Your task to perform on an android device: Turn off the flashlight Image 0: 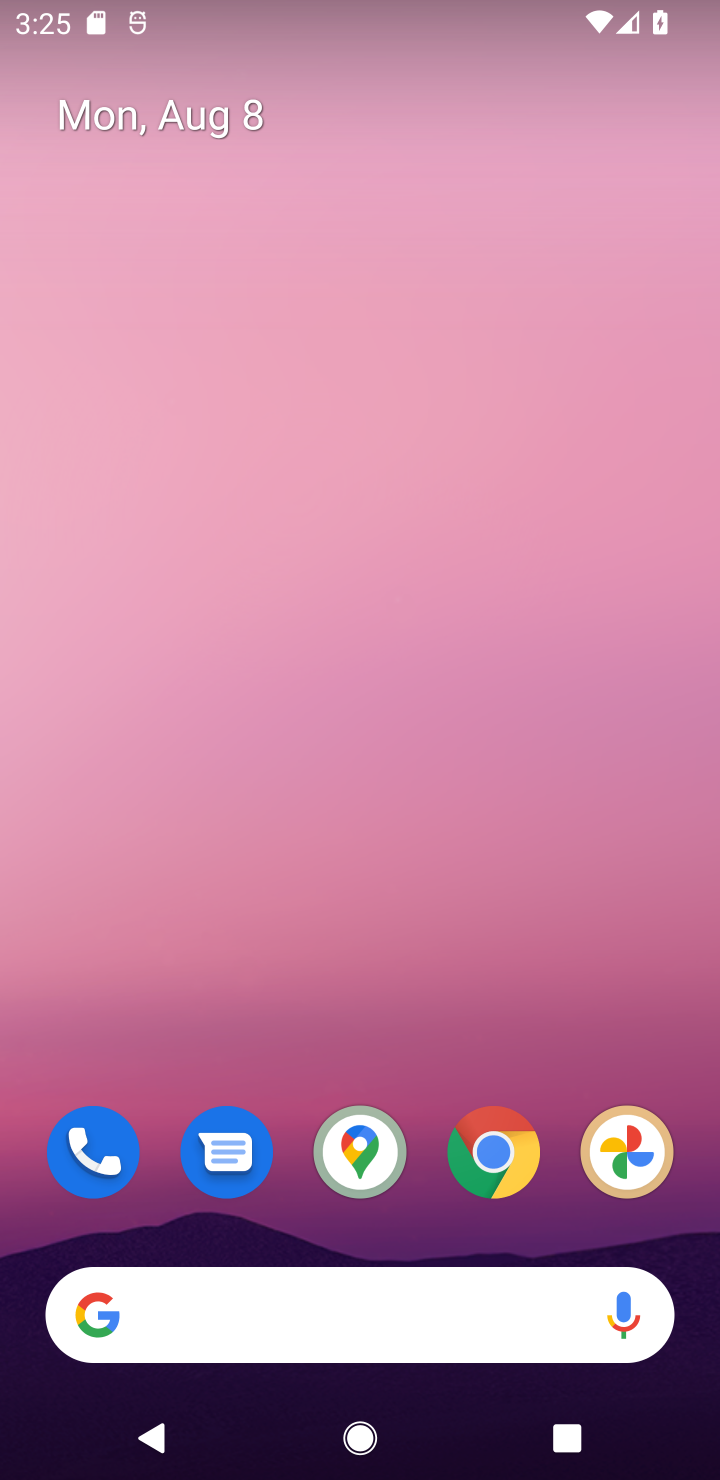
Step 0: drag from (326, 1217) to (502, 0)
Your task to perform on an android device: Turn off the flashlight Image 1: 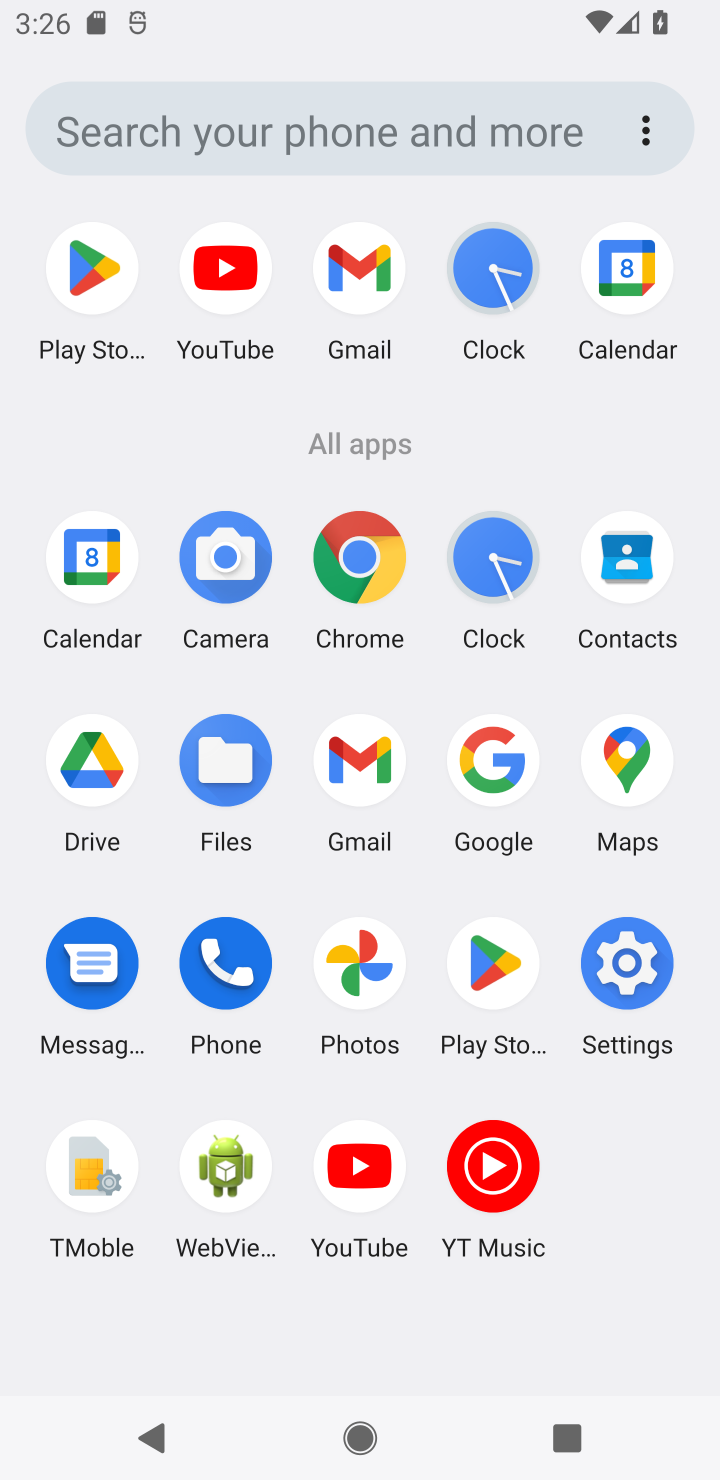
Step 1: click (629, 972)
Your task to perform on an android device: Turn off the flashlight Image 2: 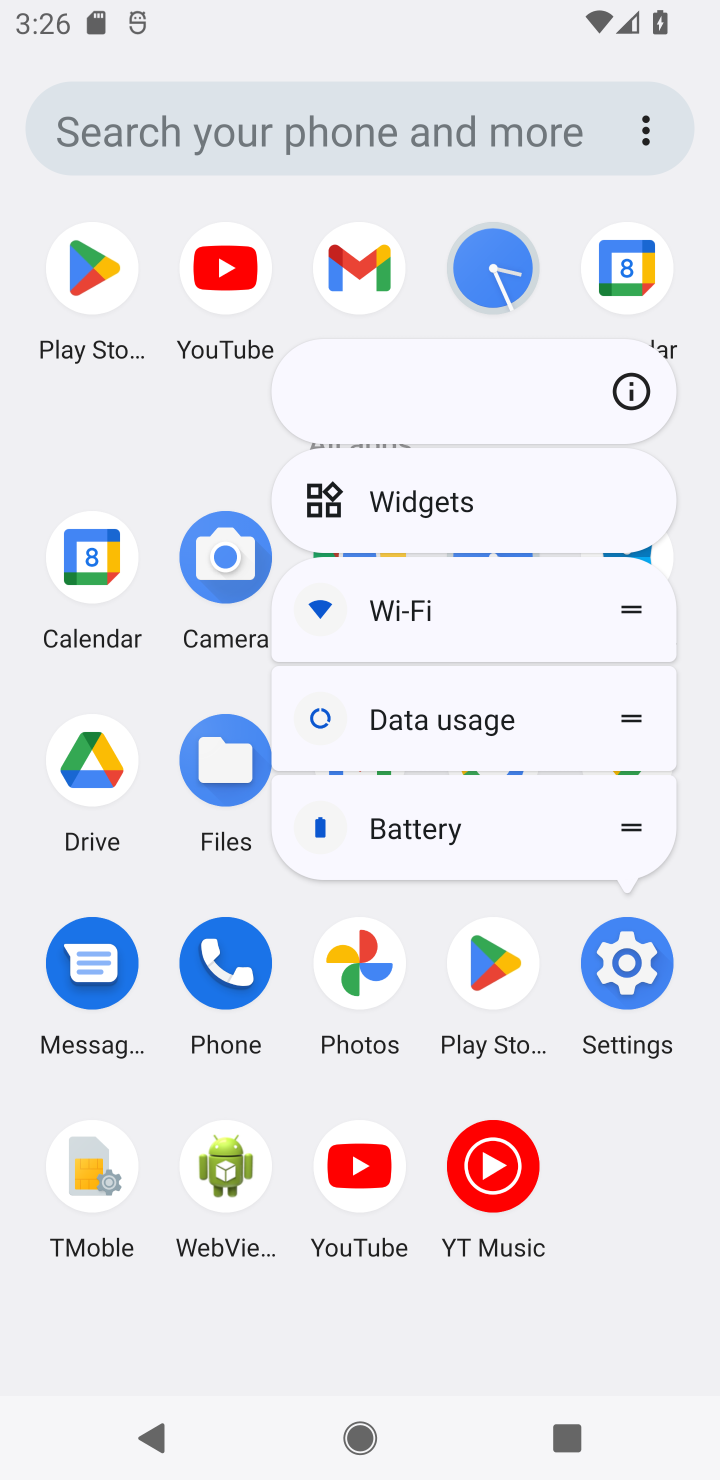
Step 2: click (631, 964)
Your task to perform on an android device: Turn off the flashlight Image 3: 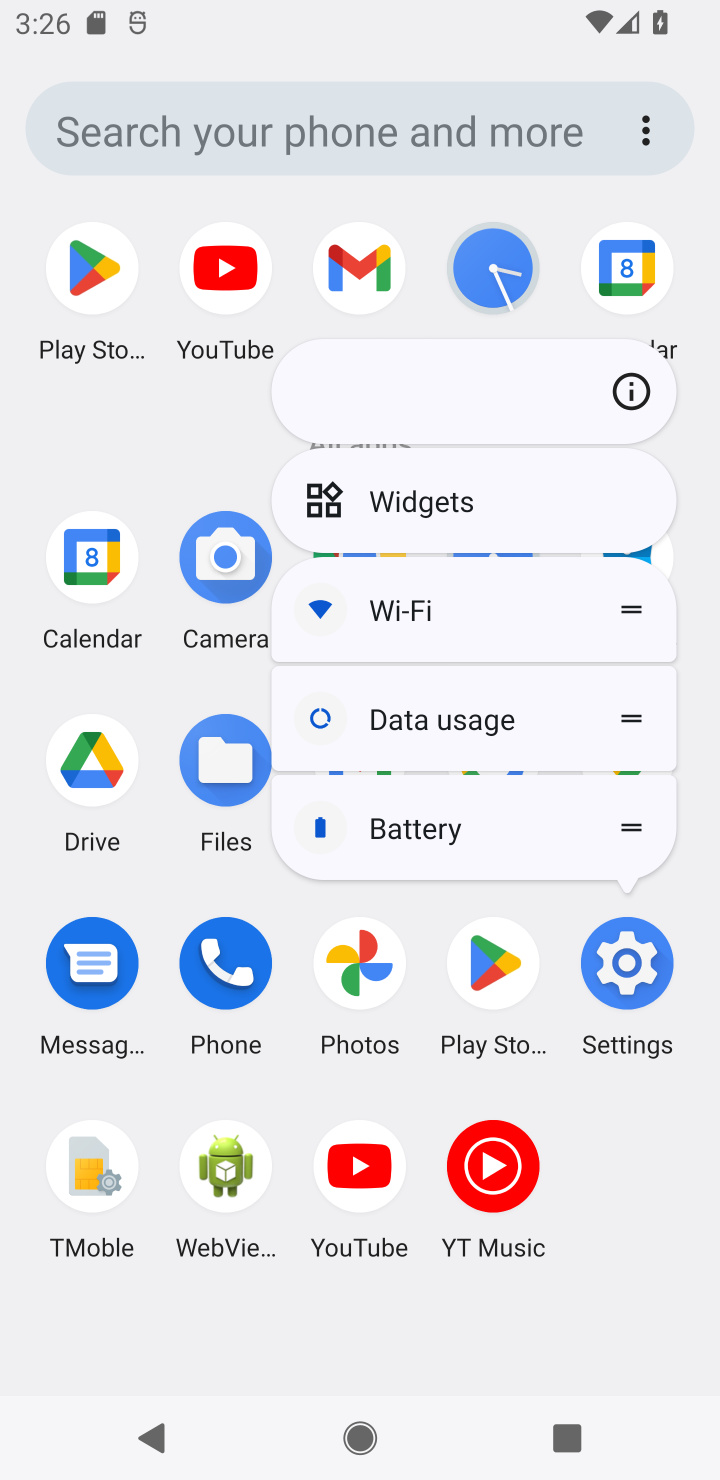
Step 3: click (631, 964)
Your task to perform on an android device: Turn off the flashlight Image 4: 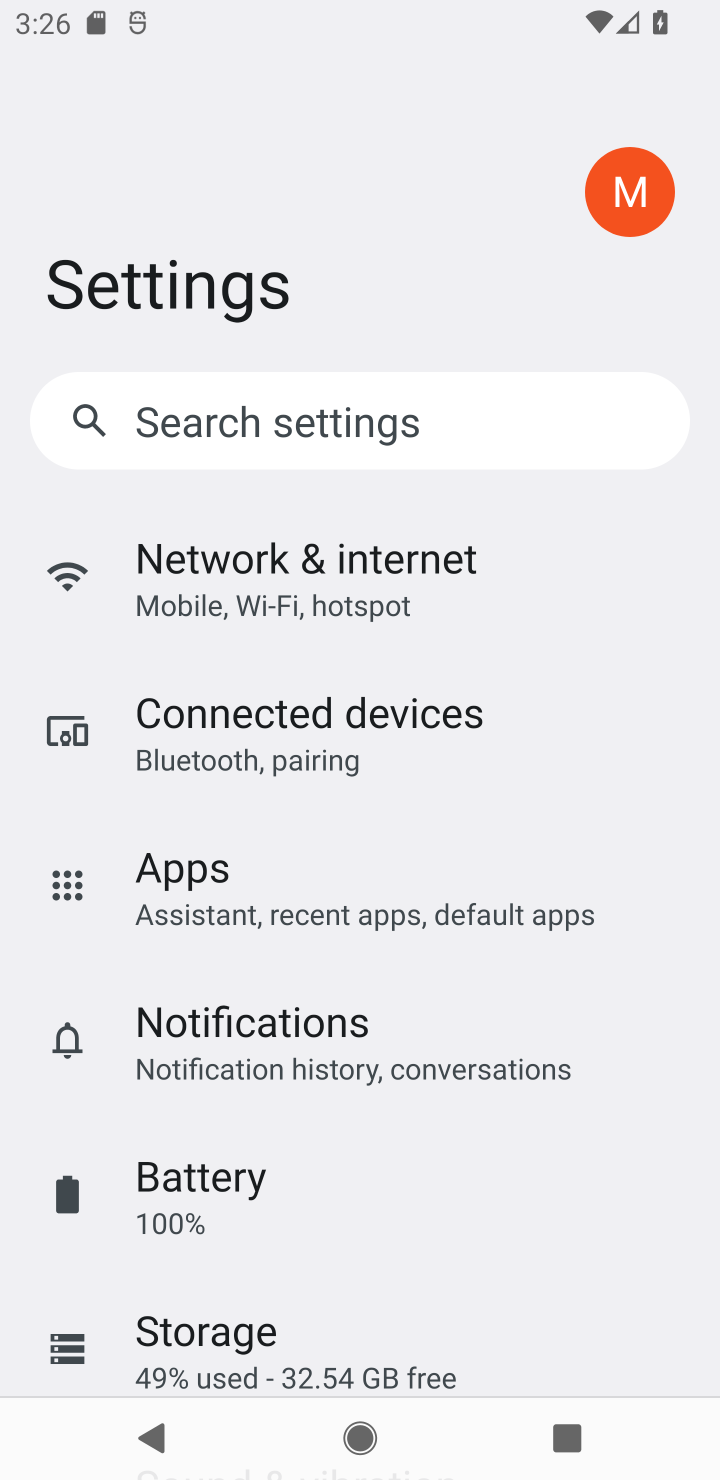
Step 4: click (241, 428)
Your task to perform on an android device: Turn off the flashlight Image 5: 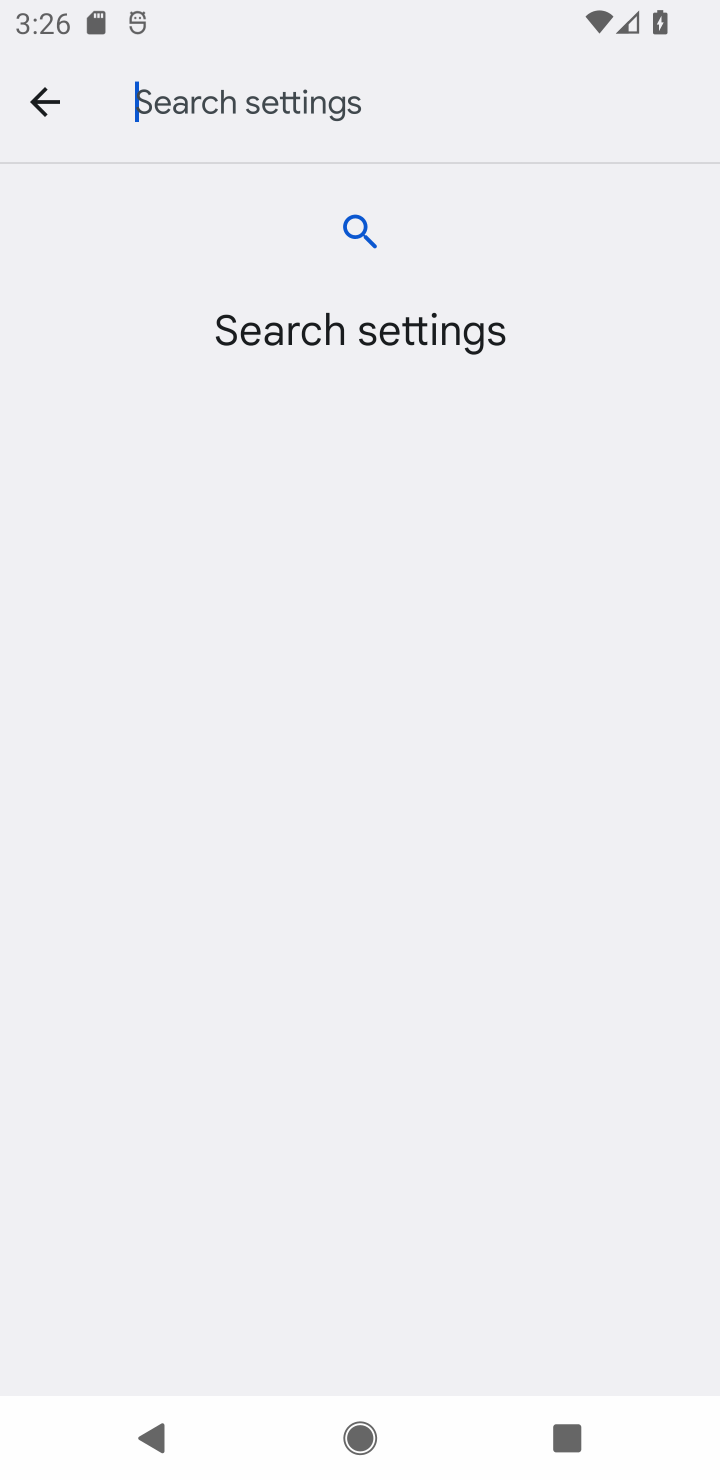
Step 5: type "flashlight"
Your task to perform on an android device: Turn off the flashlight Image 6: 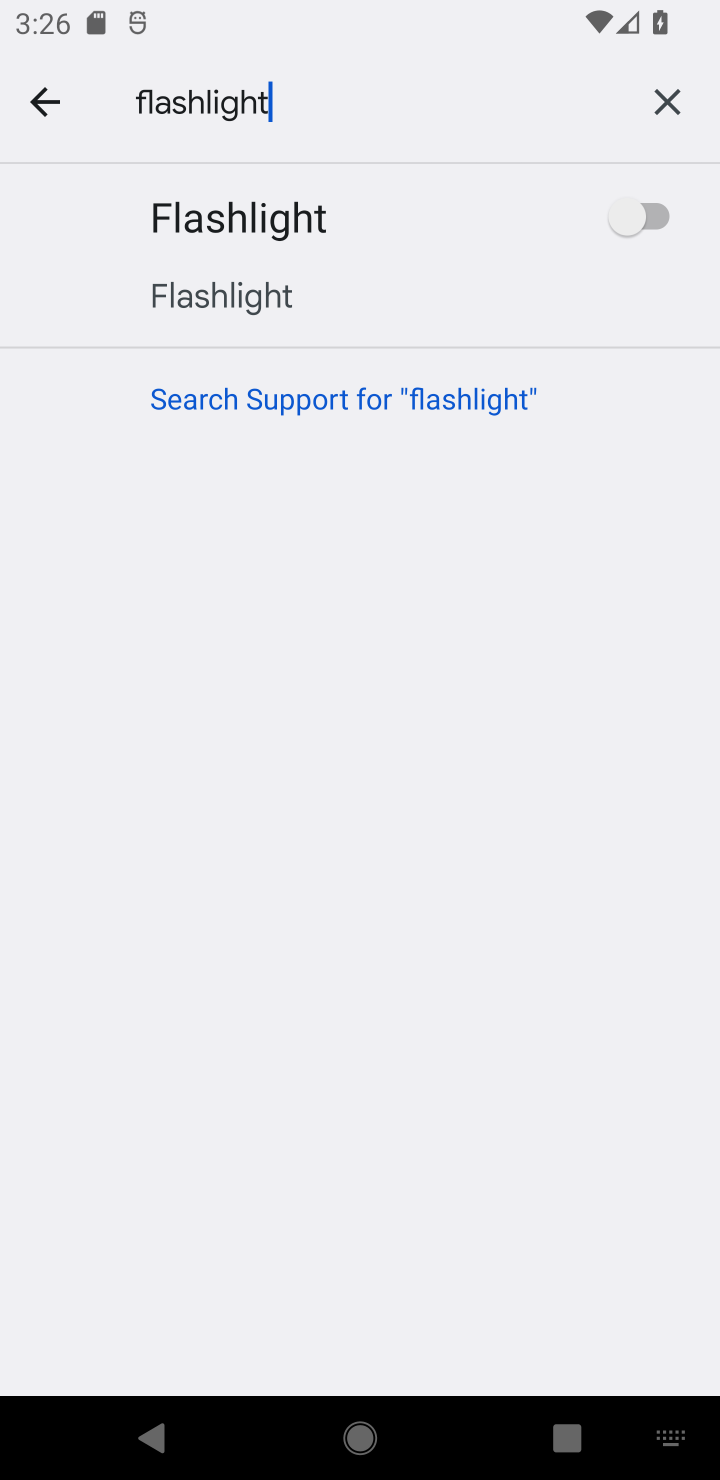
Step 6: task complete